Your task to perform on an android device: show emergency info Image 0: 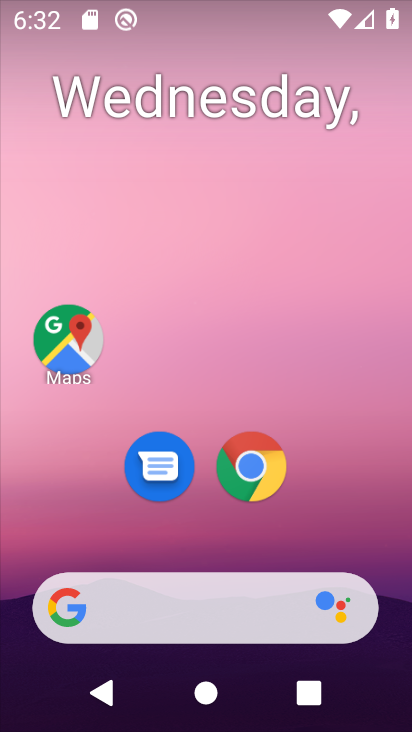
Step 0: click (179, 601)
Your task to perform on an android device: show emergency info Image 1: 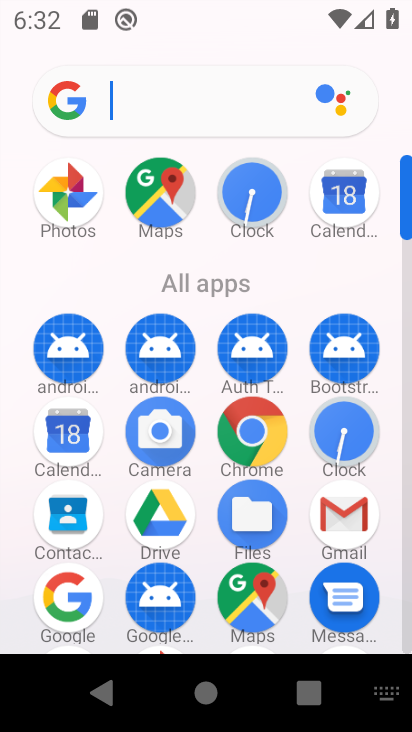
Step 1: drag from (202, 532) to (150, 178)
Your task to perform on an android device: show emergency info Image 2: 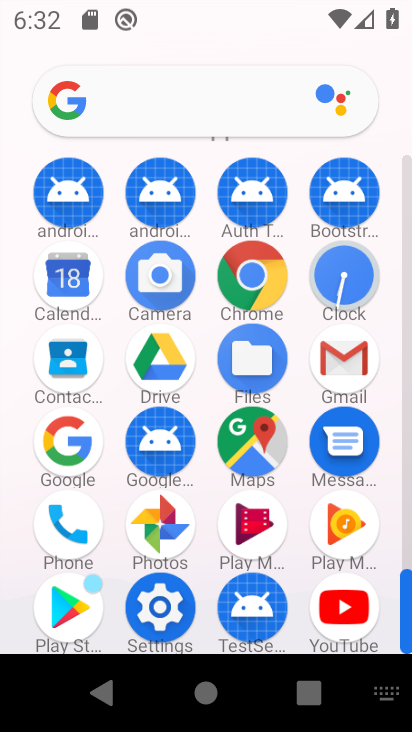
Step 2: click (149, 612)
Your task to perform on an android device: show emergency info Image 3: 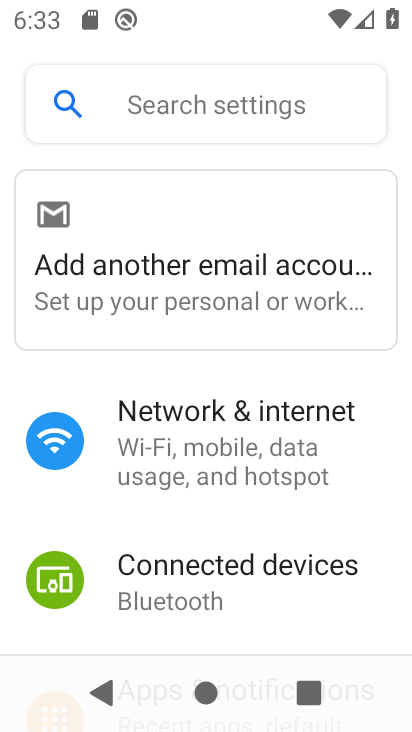
Step 3: drag from (301, 584) to (283, 257)
Your task to perform on an android device: show emergency info Image 4: 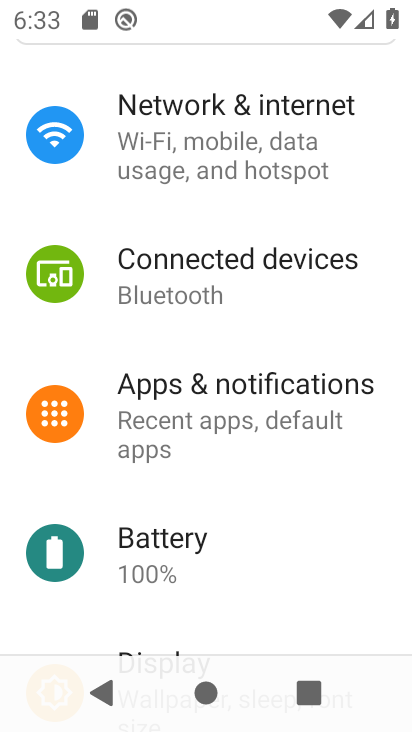
Step 4: drag from (264, 481) to (255, 181)
Your task to perform on an android device: show emergency info Image 5: 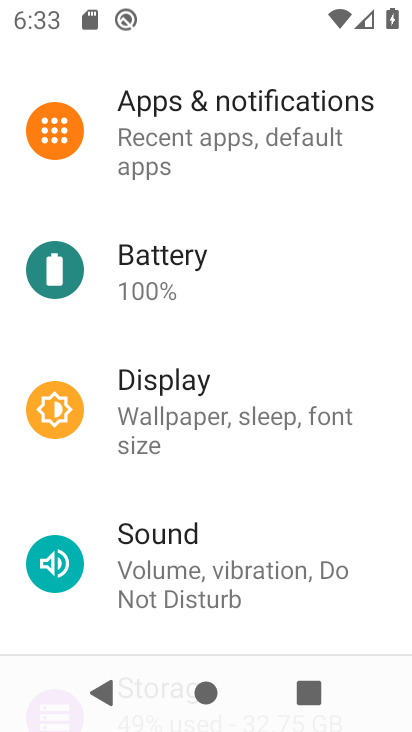
Step 5: drag from (242, 452) to (232, 103)
Your task to perform on an android device: show emergency info Image 6: 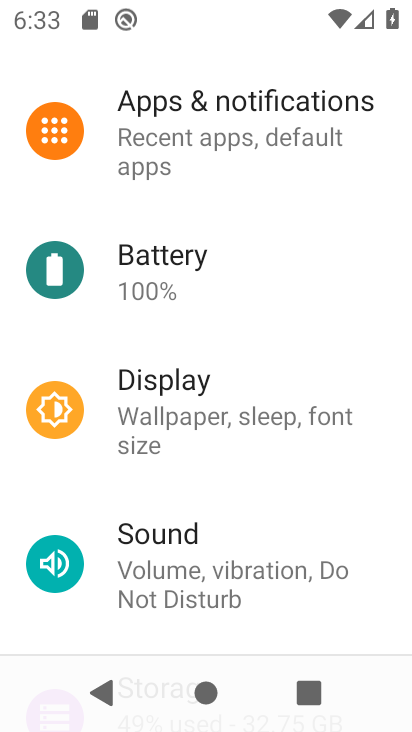
Step 6: drag from (230, 468) to (206, 208)
Your task to perform on an android device: show emergency info Image 7: 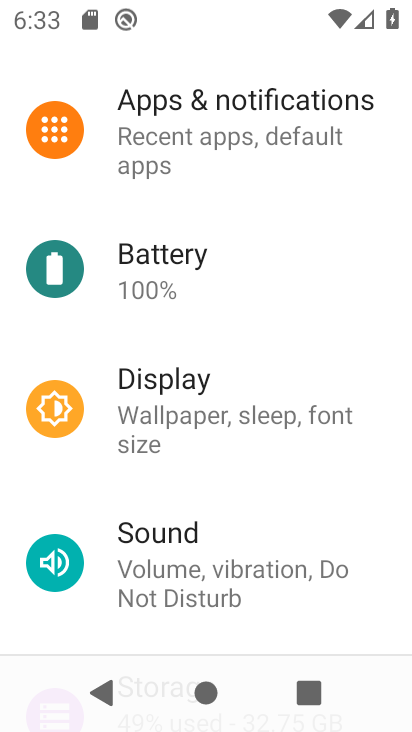
Step 7: drag from (212, 497) to (168, 202)
Your task to perform on an android device: show emergency info Image 8: 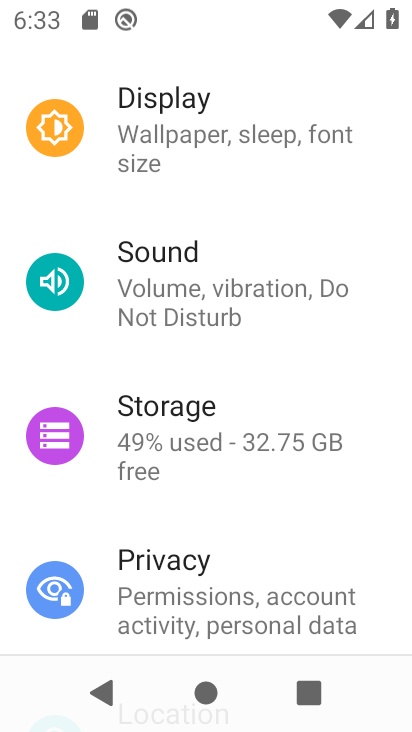
Step 8: drag from (179, 529) to (126, 187)
Your task to perform on an android device: show emergency info Image 9: 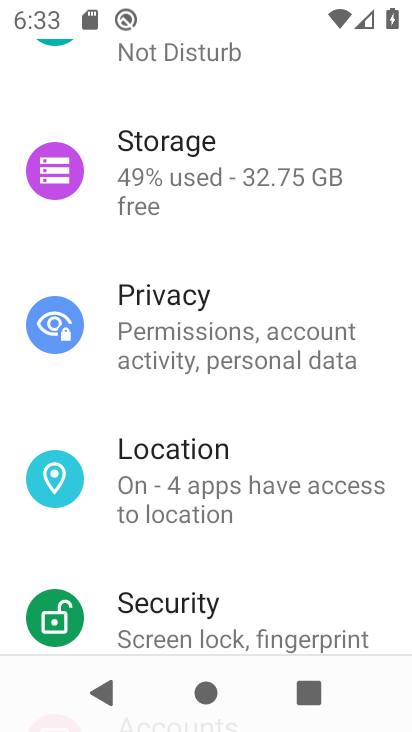
Step 9: drag from (165, 563) to (150, 239)
Your task to perform on an android device: show emergency info Image 10: 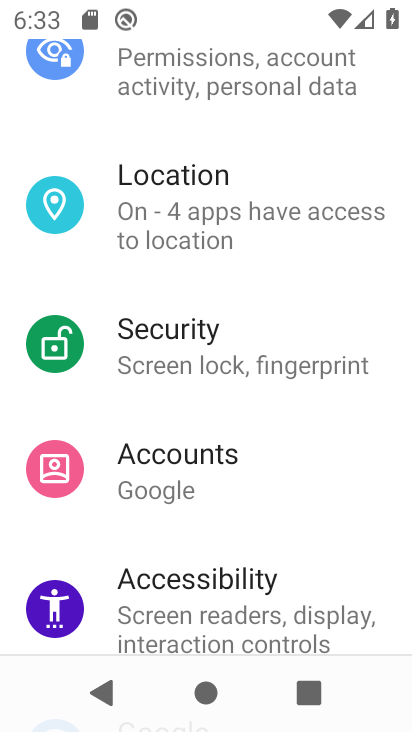
Step 10: drag from (173, 539) to (163, 249)
Your task to perform on an android device: show emergency info Image 11: 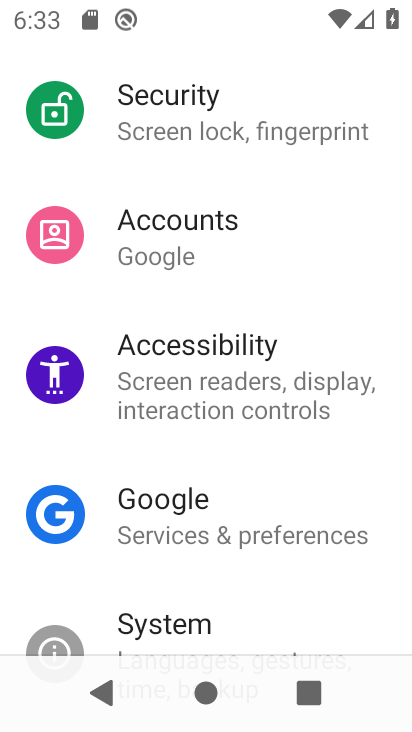
Step 11: drag from (185, 442) to (154, 170)
Your task to perform on an android device: show emergency info Image 12: 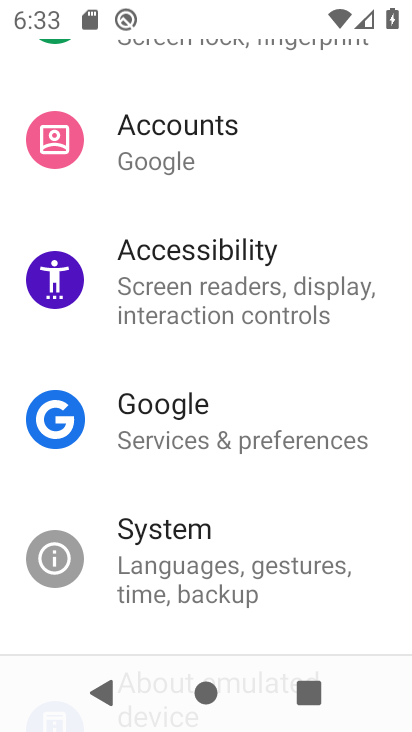
Step 12: drag from (161, 472) to (145, 211)
Your task to perform on an android device: show emergency info Image 13: 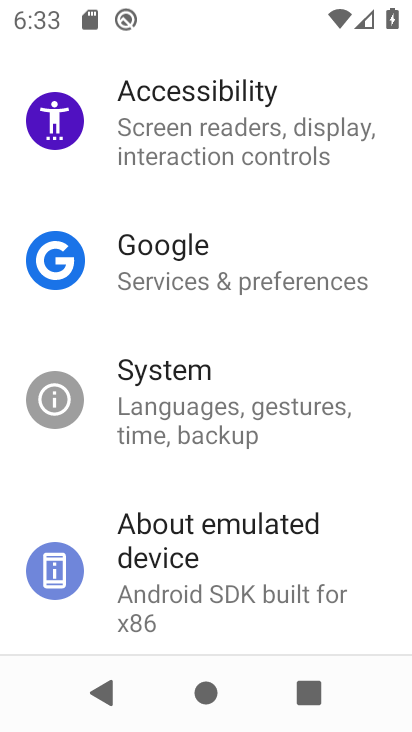
Step 13: drag from (168, 459) to (147, 189)
Your task to perform on an android device: show emergency info Image 14: 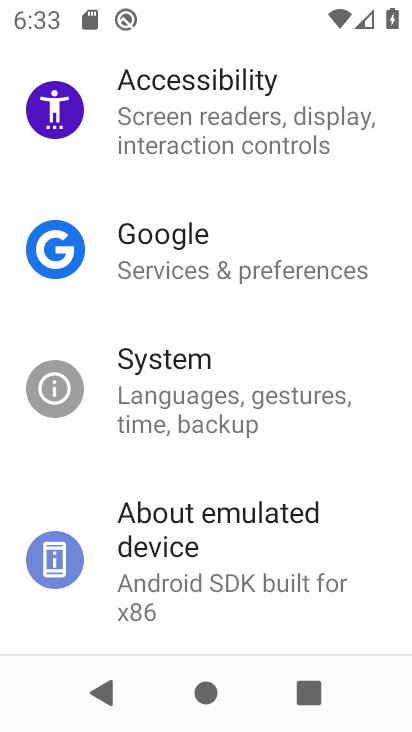
Step 14: drag from (171, 463) to (147, 128)
Your task to perform on an android device: show emergency info Image 15: 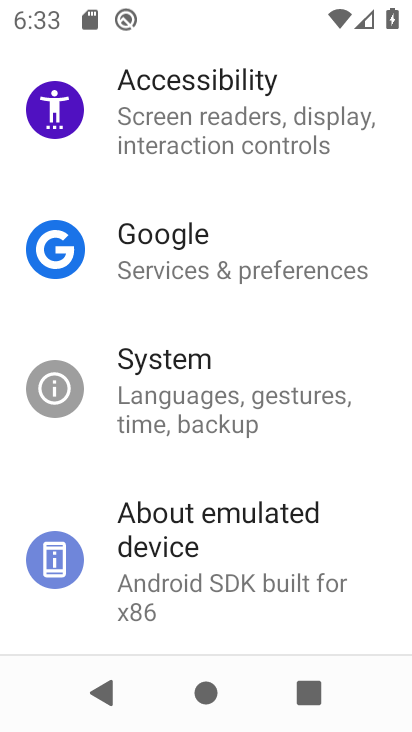
Step 15: click (161, 522)
Your task to perform on an android device: show emergency info Image 16: 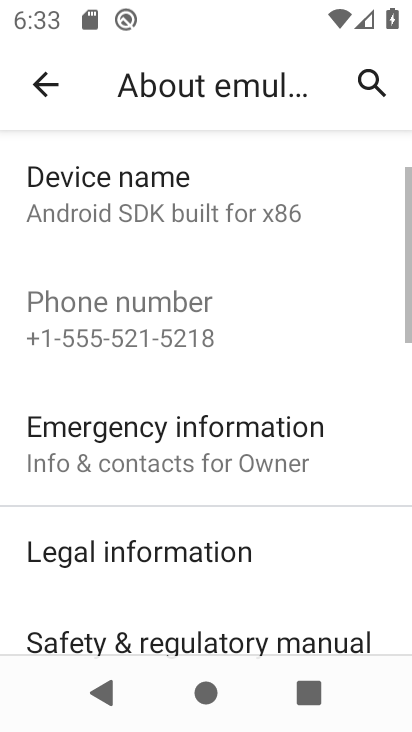
Step 16: click (158, 426)
Your task to perform on an android device: show emergency info Image 17: 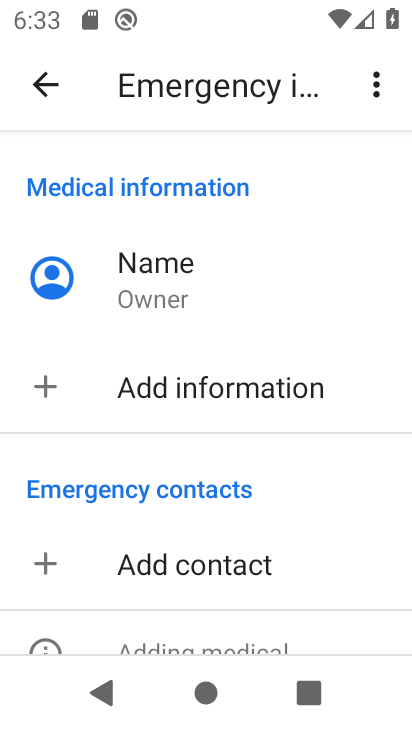
Step 17: task complete